Your task to perform on an android device: Open Google Chrome and click the shortcut for Amazon.com Image 0: 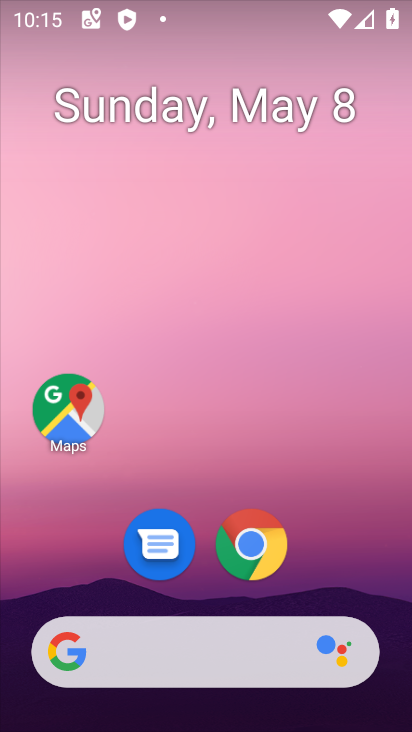
Step 0: click (258, 541)
Your task to perform on an android device: Open Google Chrome and click the shortcut for Amazon.com Image 1: 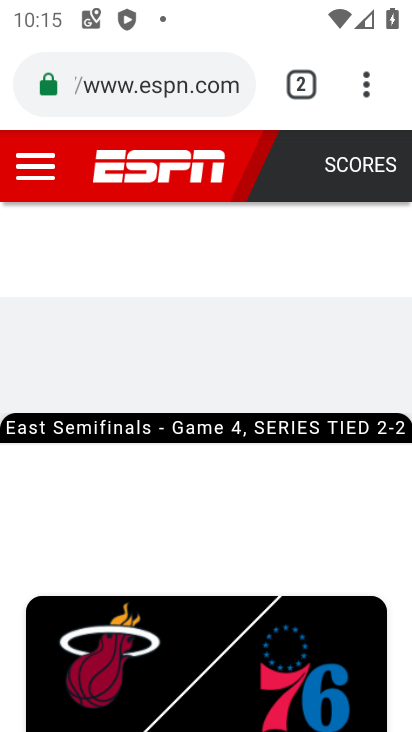
Step 1: click (296, 69)
Your task to perform on an android device: Open Google Chrome and click the shortcut for Amazon.com Image 2: 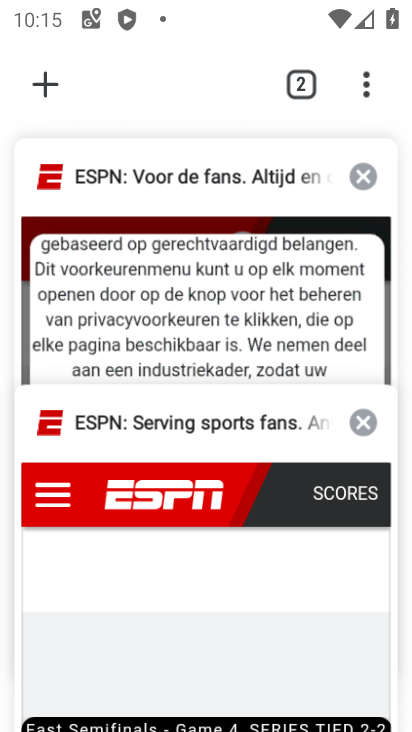
Step 2: click (42, 96)
Your task to perform on an android device: Open Google Chrome and click the shortcut for Amazon.com Image 3: 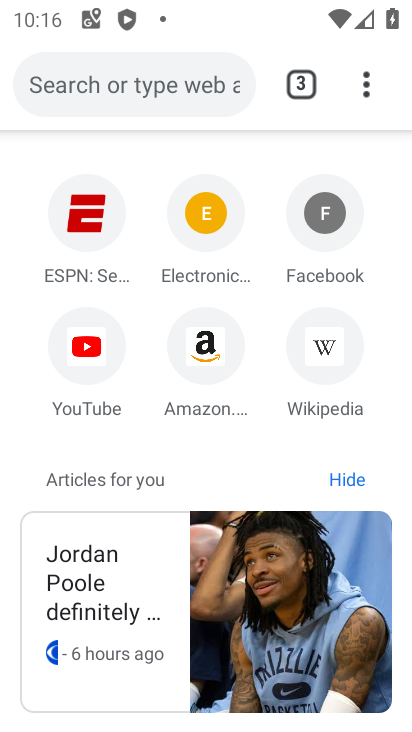
Step 3: click (215, 377)
Your task to perform on an android device: Open Google Chrome and click the shortcut for Amazon.com Image 4: 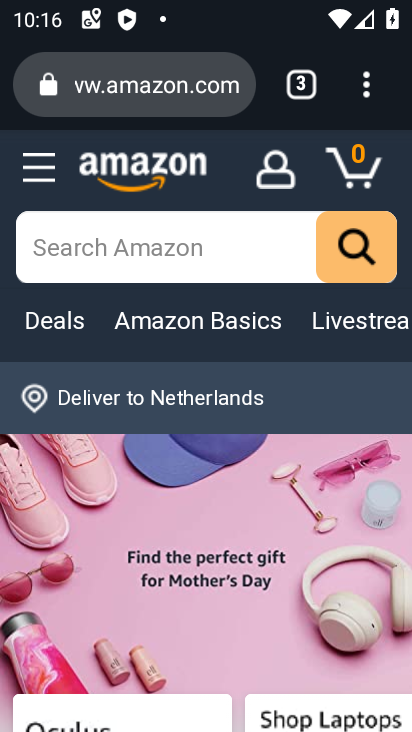
Step 4: task complete